Your task to perform on an android device: Open the phone app and click the voicemail tab. Image 0: 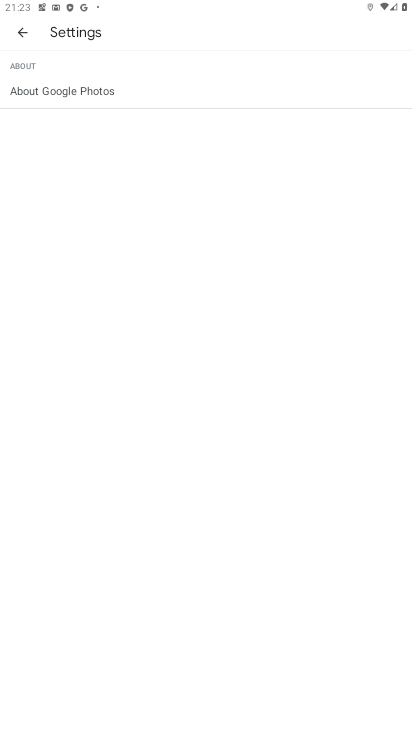
Step 0: press home button
Your task to perform on an android device: Open the phone app and click the voicemail tab. Image 1: 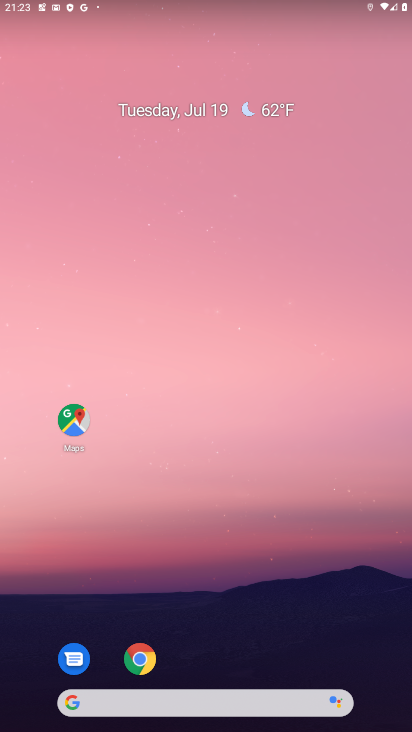
Step 1: drag from (273, 655) to (284, 4)
Your task to perform on an android device: Open the phone app and click the voicemail tab. Image 2: 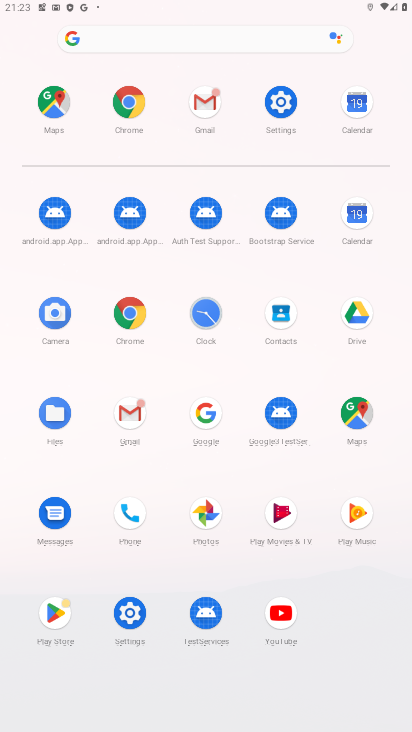
Step 2: click (147, 517)
Your task to perform on an android device: Open the phone app and click the voicemail tab. Image 3: 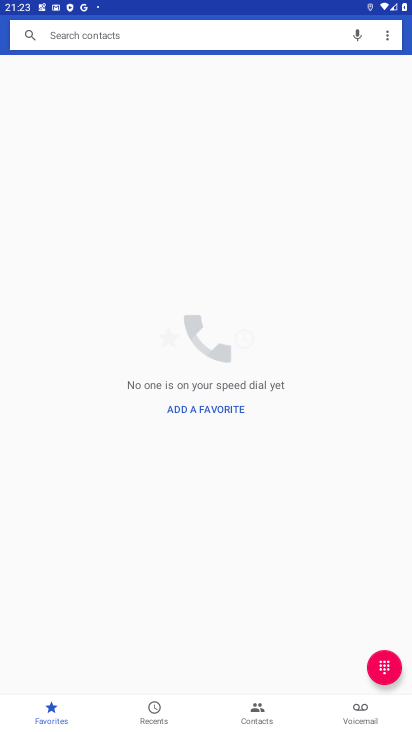
Step 3: click (381, 715)
Your task to perform on an android device: Open the phone app and click the voicemail tab. Image 4: 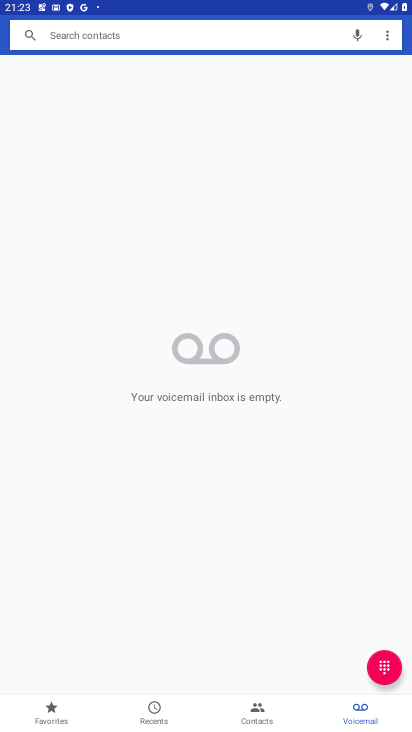
Step 4: task complete